Your task to perform on an android device: change the clock display to show seconds Image 0: 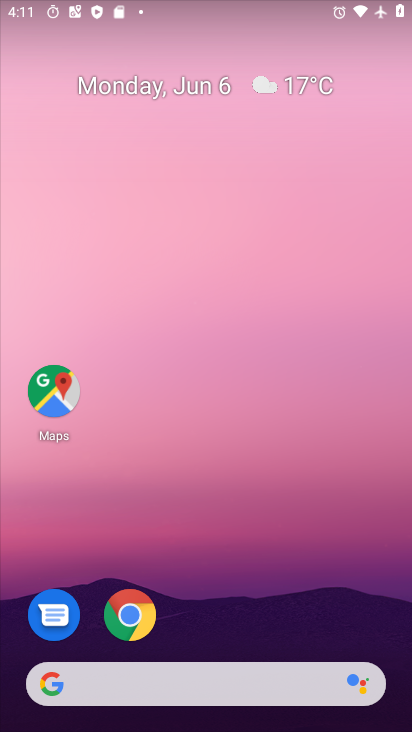
Step 0: drag from (253, 532) to (131, 54)
Your task to perform on an android device: change the clock display to show seconds Image 1: 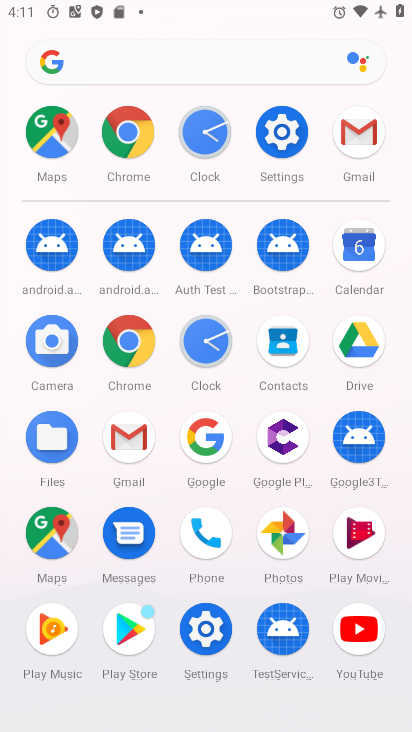
Step 1: drag from (19, 558) to (17, 243)
Your task to perform on an android device: change the clock display to show seconds Image 2: 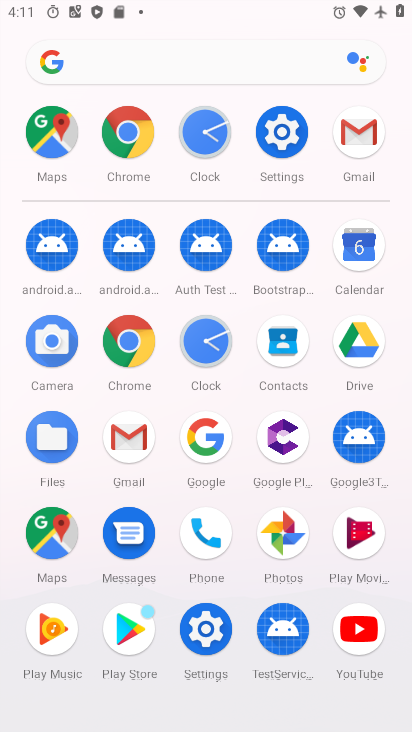
Step 2: click (205, 335)
Your task to perform on an android device: change the clock display to show seconds Image 3: 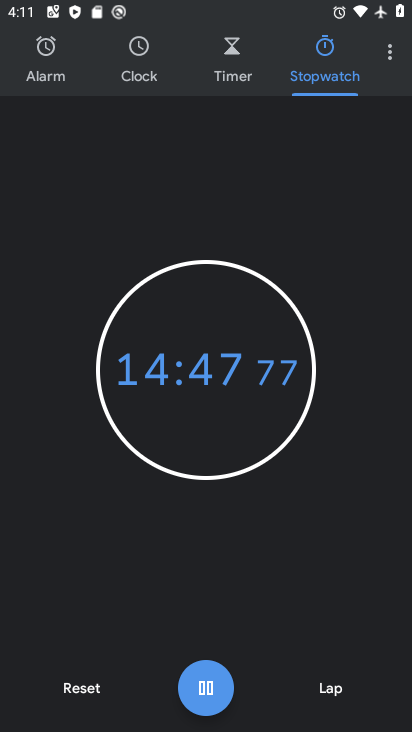
Step 3: drag from (387, 56) to (319, 110)
Your task to perform on an android device: change the clock display to show seconds Image 4: 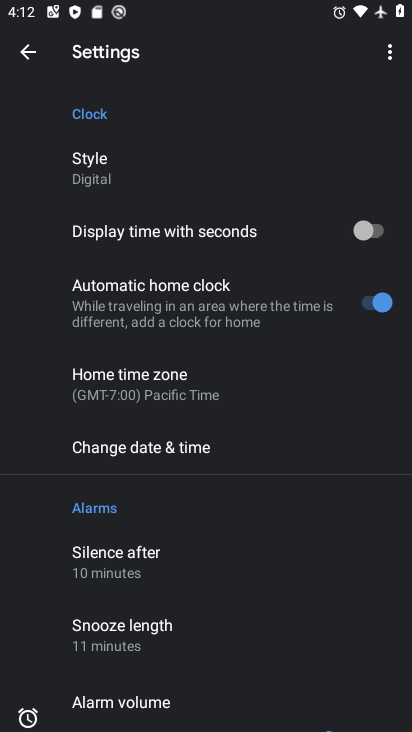
Step 4: click (368, 220)
Your task to perform on an android device: change the clock display to show seconds Image 5: 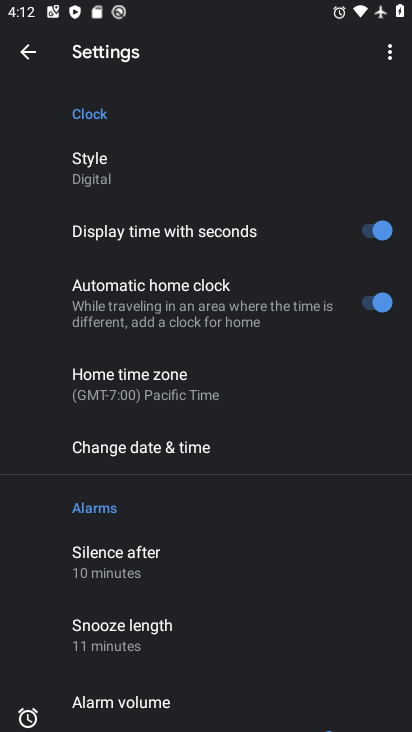
Step 5: task complete